Your task to perform on an android device: turn off translation in the chrome app Image 0: 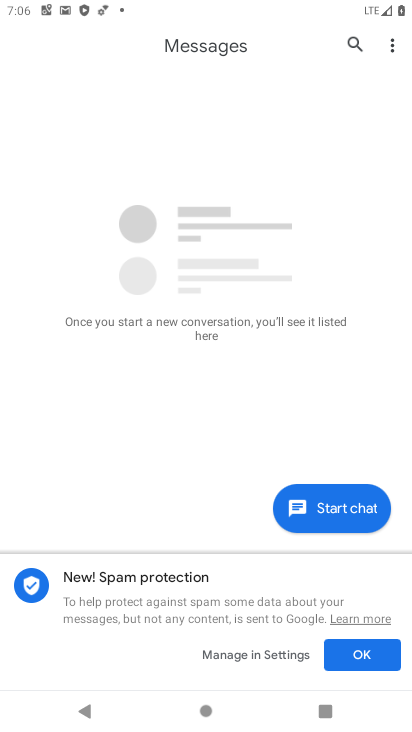
Step 0: press home button
Your task to perform on an android device: turn off translation in the chrome app Image 1: 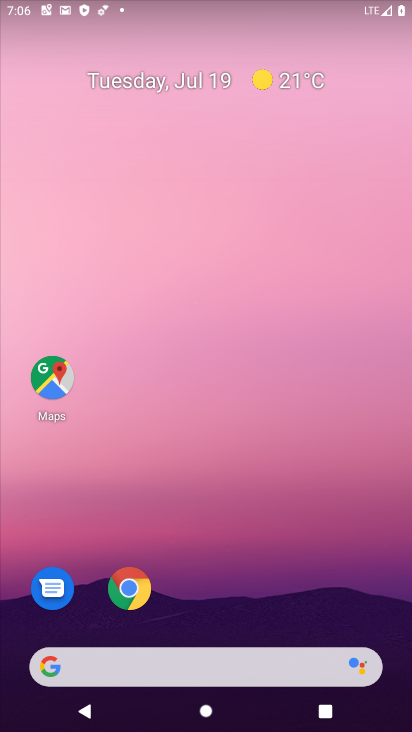
Step 1: drag from (252, 617) to (239, 188)
Your task to perform on an android device: turn off translation in the chrome app Image 2: 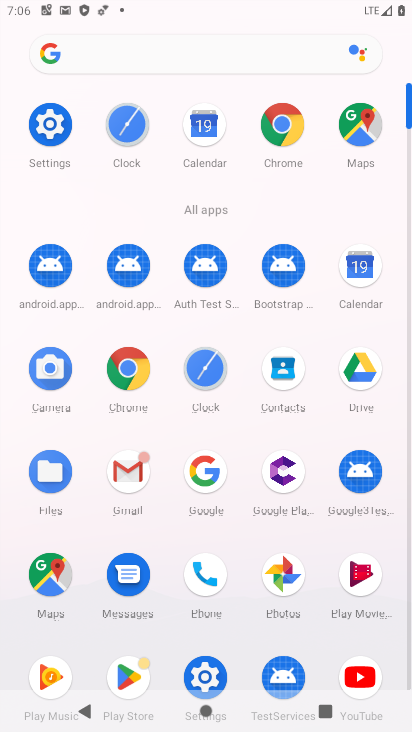
Step 2: click (127, 377)
Your task to perform on an android device: turn off translation in the chrome app Image 3: 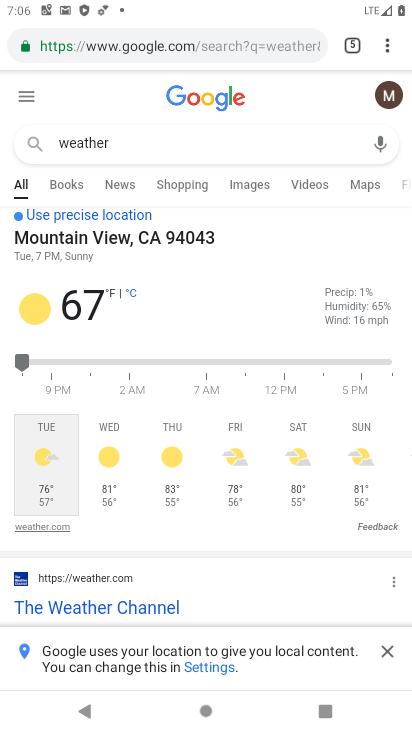
Step 3: click (355, 50)
Your task to perform on an android device: turn off translation in the chrome app Image 4: 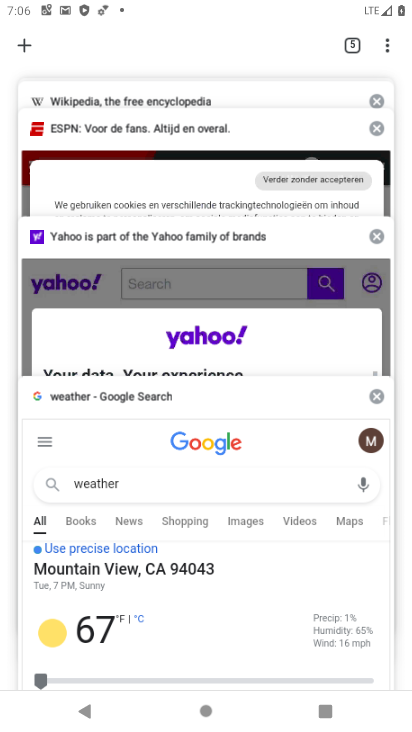
Step 4: click (24, 47)
Your task to perform on an android device: turn off translation in the chrome app Image 5: 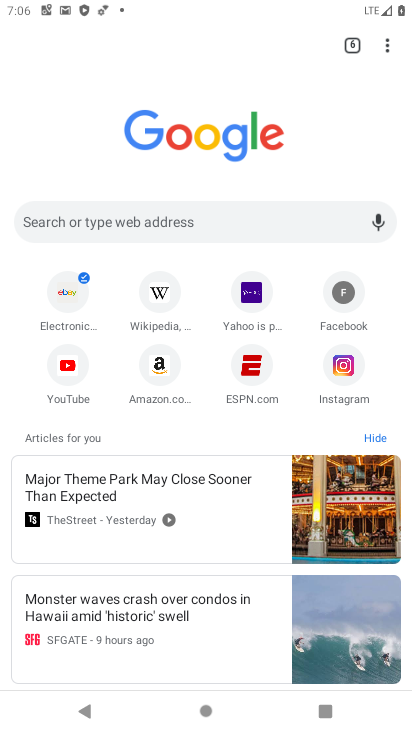
Step 5: click (386, 52)
Your task to perform on an android device: turn off translation in the chrome app Image 6: 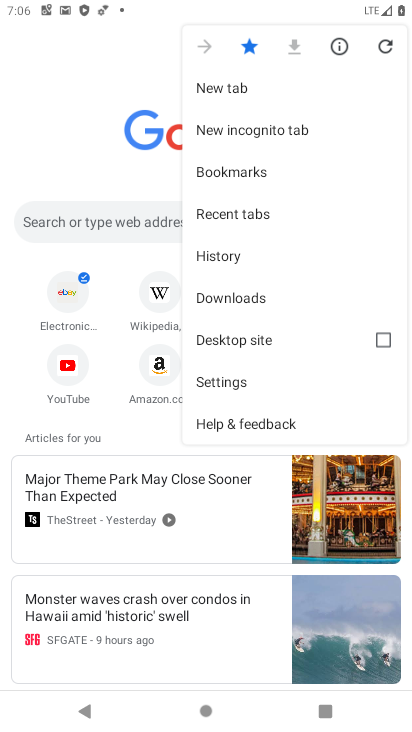
Step 6: click (256, 383)
Your task to perform on an android device: turn off translation in the chrome app Image 7: 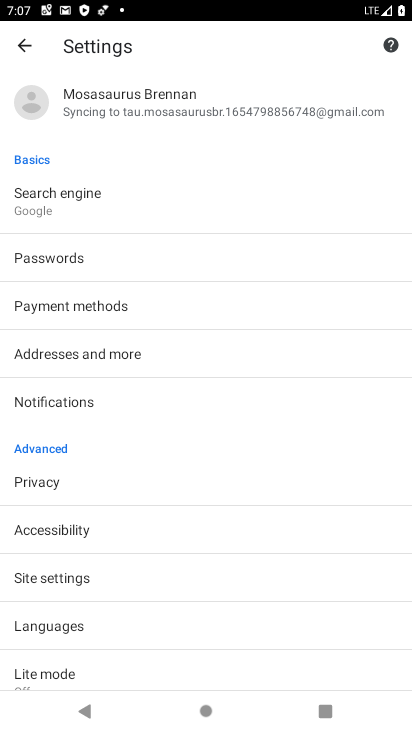
Step 7: click (78, 636)
Your task to perform on an android device: turn off translation in the chrome app Image 8: 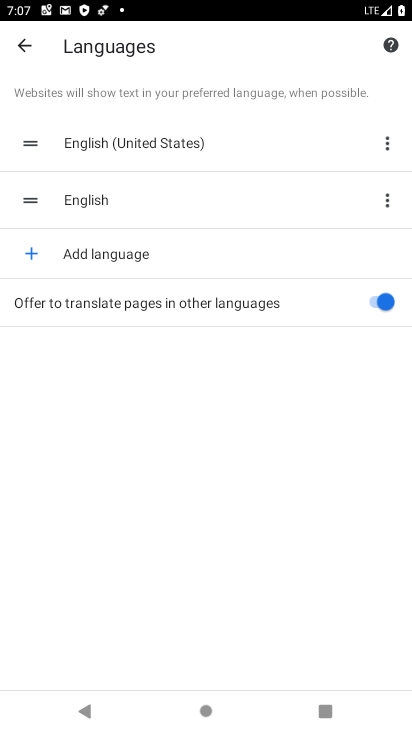
Step 8: click (393, 310)
Your task to perform on an android device: turn off translation in the chrome app Image 9: 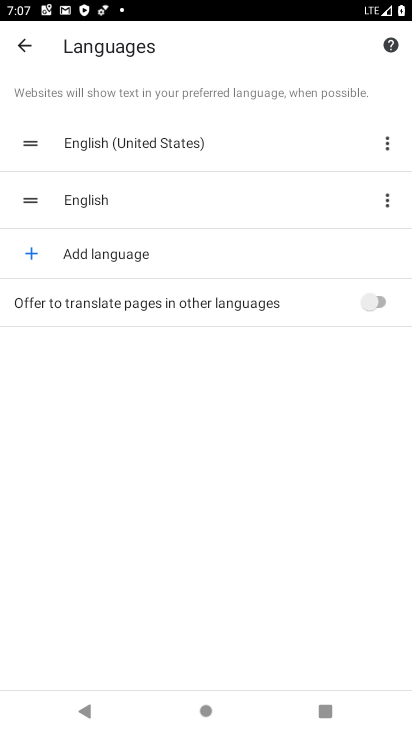
Step 9: task complete